Your task to perform on an android device: Go to ESPN.com Image 0: 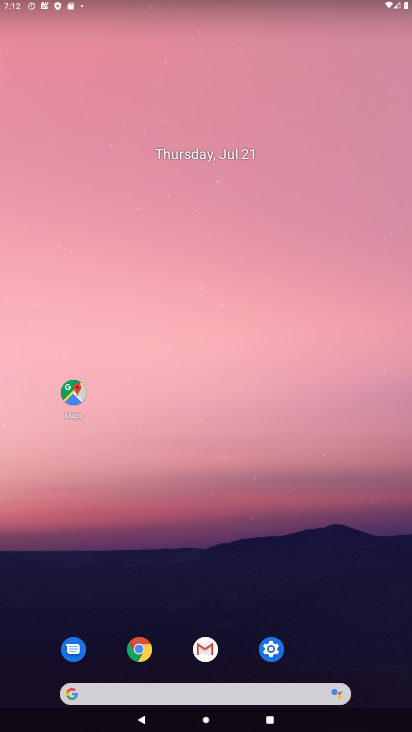
Step 0: press home button
Your task to perform on an android device: Go to ESPN.com Image 1: 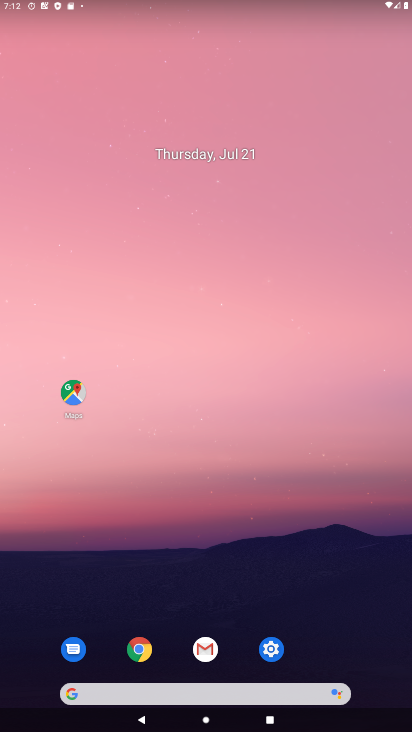
Step 1: click (156, 642)
Your task to perform on an android device: Go to ESPN.com Image 2: 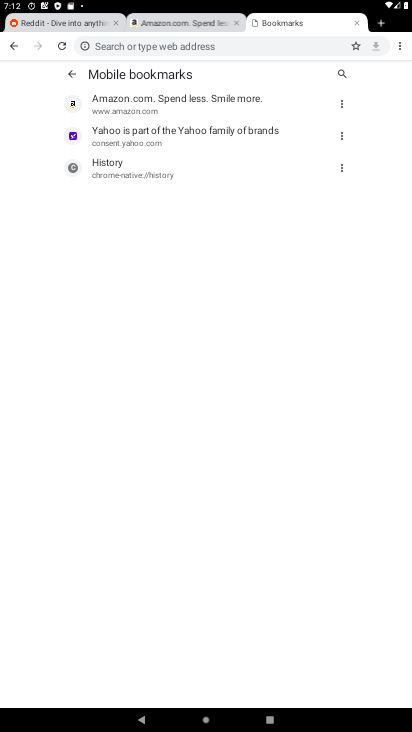
Step 2: click (374, 28)
Your task to perform on an android device: Go to ESPN.com Image 3: 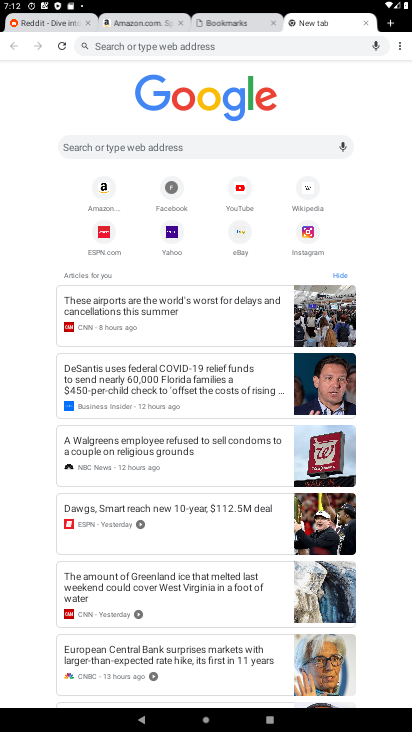
Step 3: click (107, 242)
Your task to perform on an android device: Go to ESPN.com Image 4: 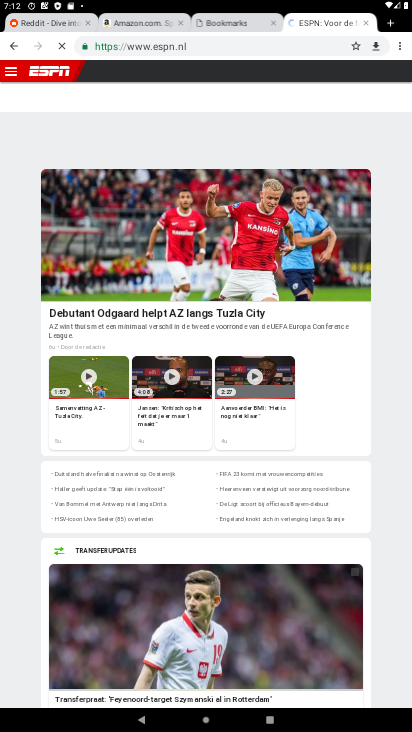
Step 4: task complete